Your task to perform on an android device: open sync settings in chrome Image 0: 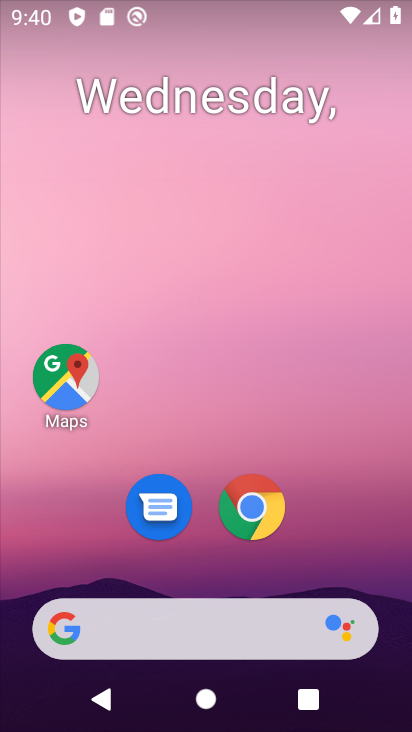
Step 0: drag from (253, 524) to (194, 210)
Your task to perform on an android device: open sync settings in chrome Image 1: 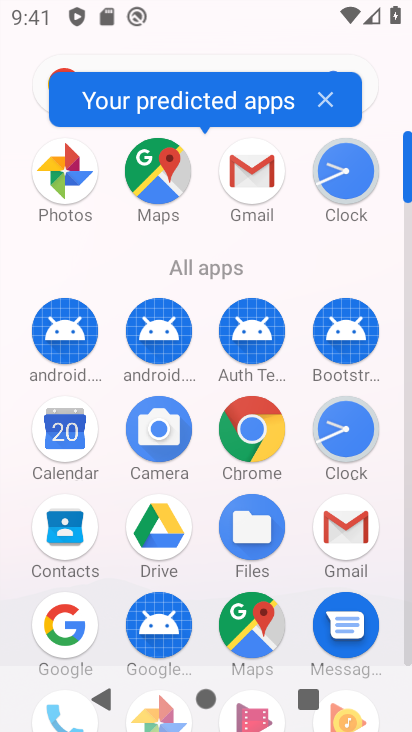
Step 1: click (257, 434)
Your task to perform on an android device: open sync settings in chrome Image 2: 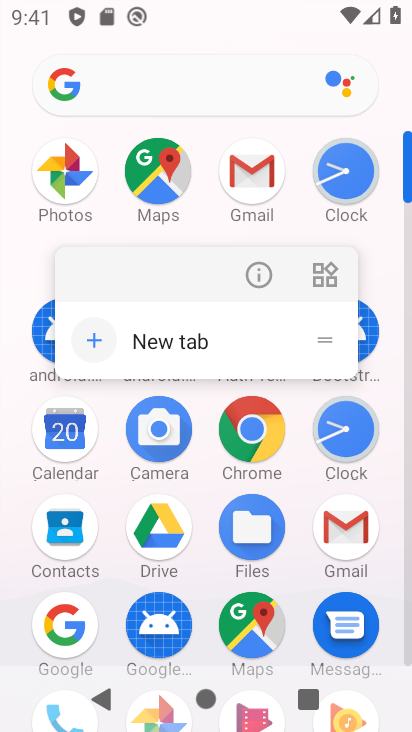
Step 2: click (241, 439)
Your task to perform on an android device: open sync settings in chrome Image 3: 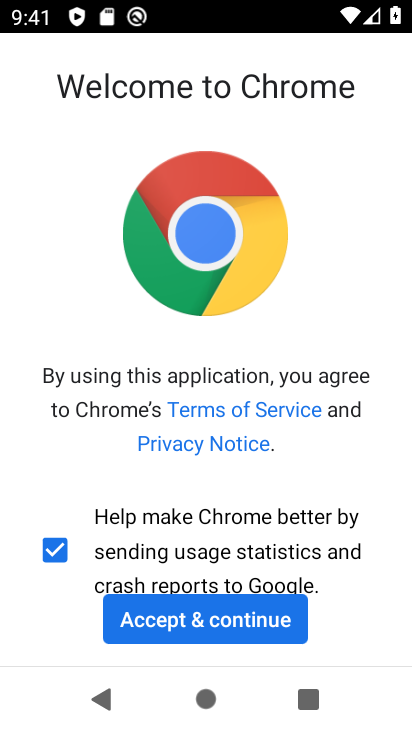
Step 3: click (187, 627)
Your task to perform on an android device: open sync settings in chrome Image 4: 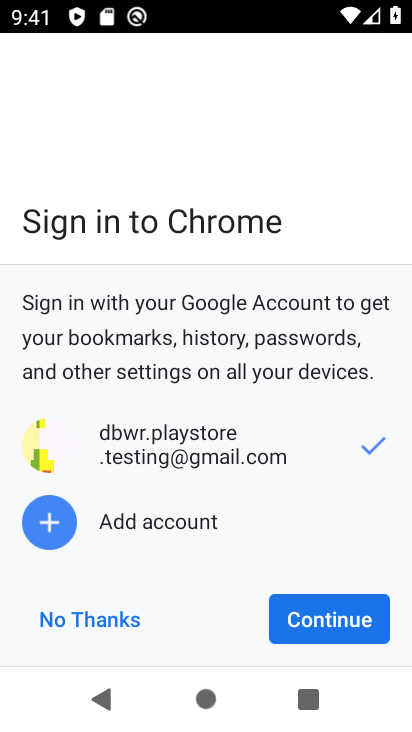
Step 4: click (314, 600)
Your task to perform on an android device: open sync settings in chrome Image 5: 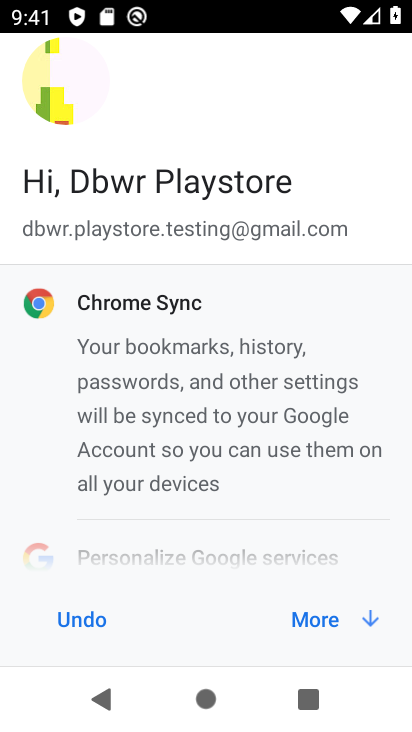
Step 5: click (360, 625)
Your task to perform on an android device: open sync settings in chrome Image 6: 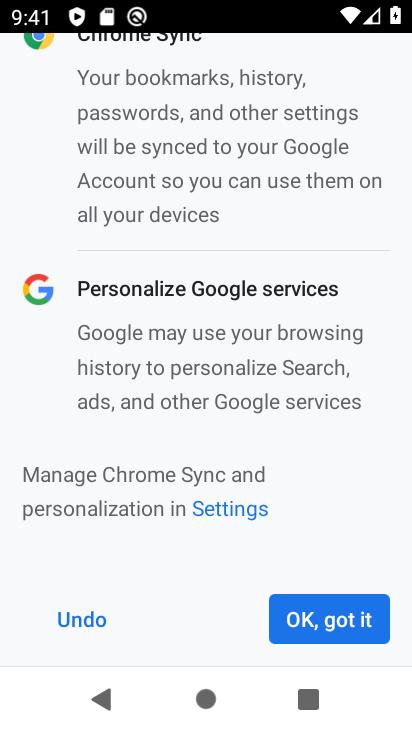
Step 6: click (330, 612)
Your task to perform on an android device: open sync settings in chrome Image 7: 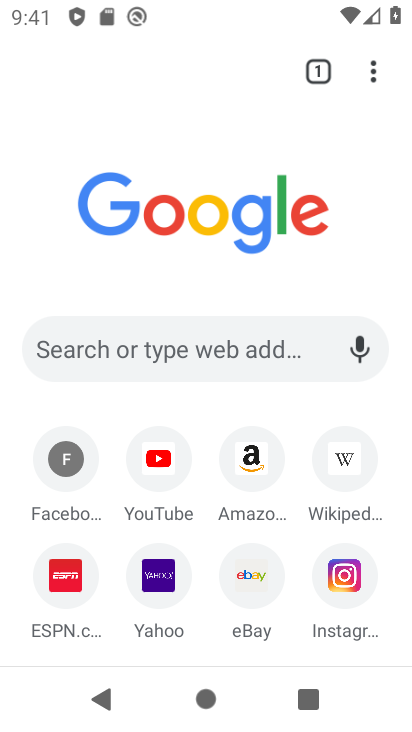
Step 7: click (373, 74)
Your task to perform on an android device: open sync settings in chrome Image 8: 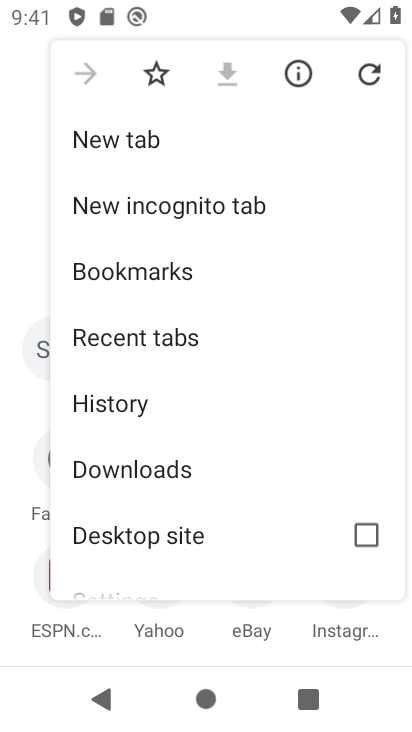
Step 8: click (114, 583)
Your task to perform on an android device: open sync settings in chrome Image 9: 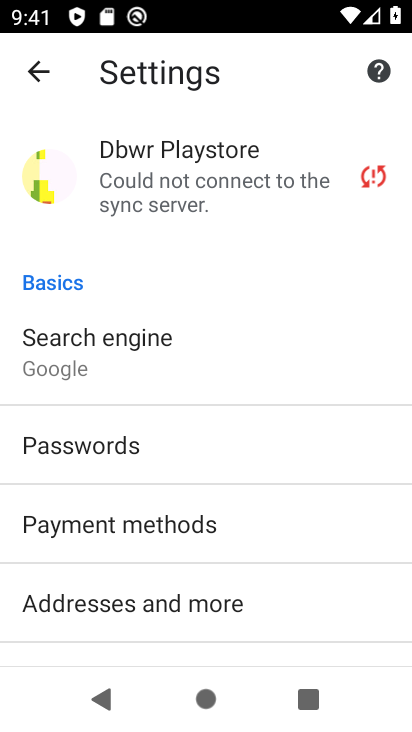
Step 9: drag from (132, 567) to (127, 168)
Your task to perform on an android device: open sync settings in chrome Image 10: 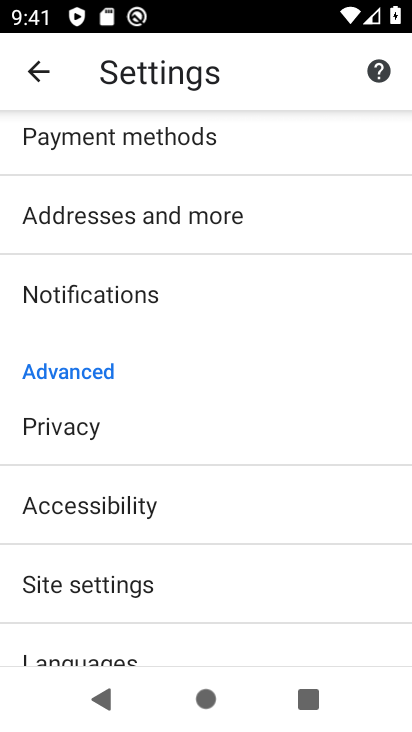
Step 10: click (74, 573)
Your task to perform on an android device: open sync settings in chrome Image 11: 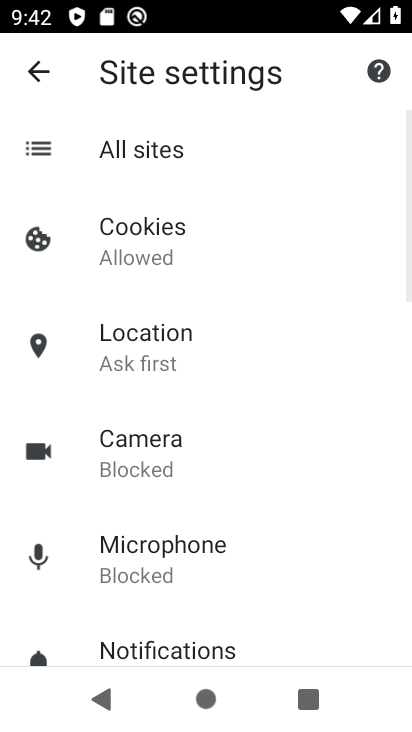
Step 11: drag from (78, 564) to (180, 162)
Your task to perform on an android device: open sync settings in chrome Image 12: 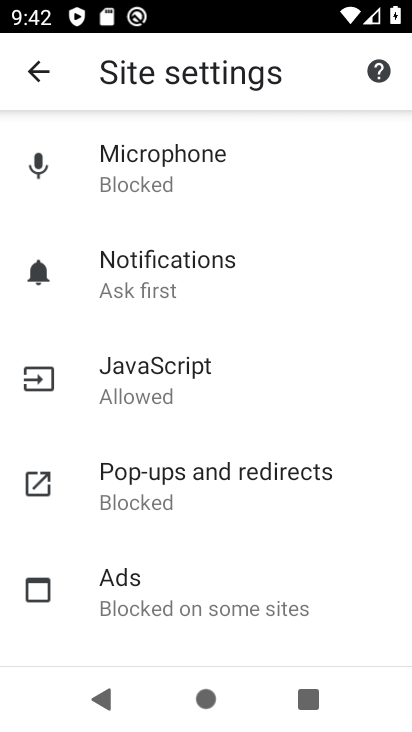
Step 12: drag from (228, 466) to (247, 309)
Your task to perform on an android device: open sync settings in chrome Image 13: 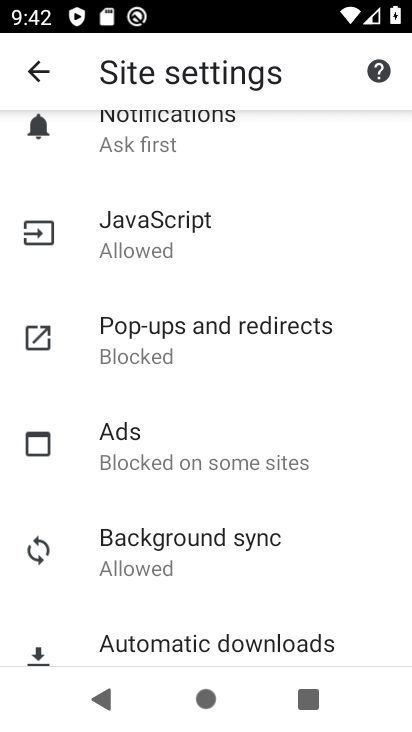
Step 13: click (198, 519)
Your task to perform on an android device: open sync settings in chrome Image 14: 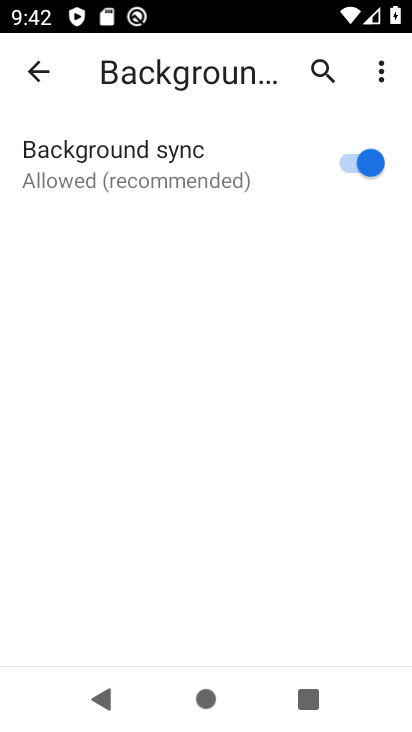
Step 14: click (210, 437)
Your task to perform on an android device: open sync settings in chrome Image 15: 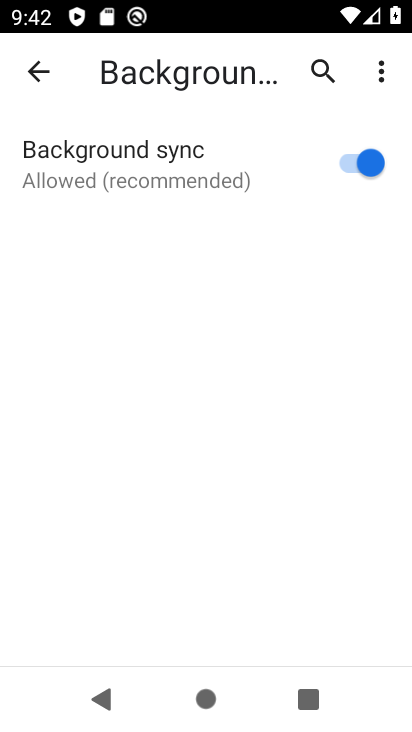
Step 15: click (241, 187)
Your task to perform on an android device: open sync settings in chrome Image 16: 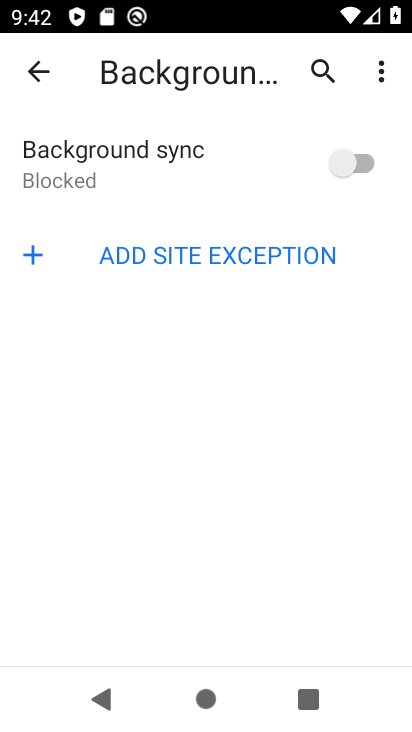
Step 16: click (225, 201)
Your task to perform on an android device: open sync settings in chrome Image 17: 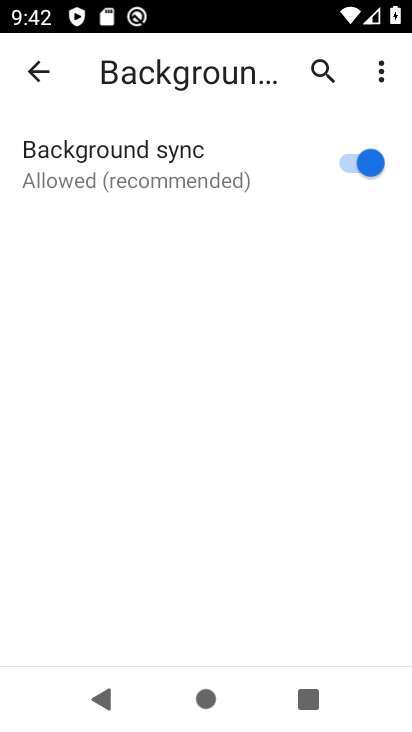
Step 17: task complete